Your task to perform on an android device: turn off javascript in the chrome app Image 0: 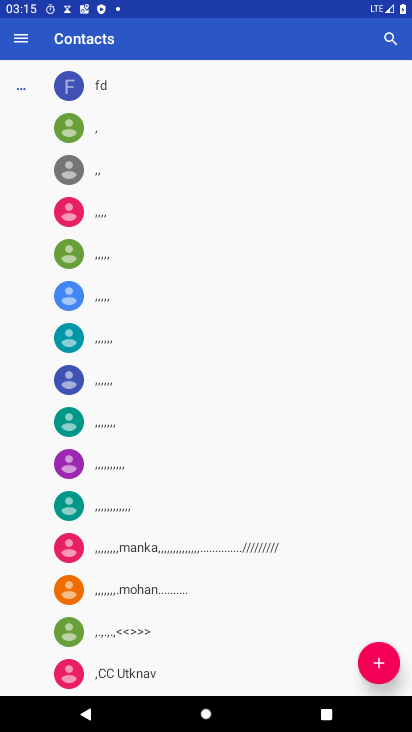
Step 0: press home button
Your task to perform on an android device: turn off javascript in the chrome app Image 1: 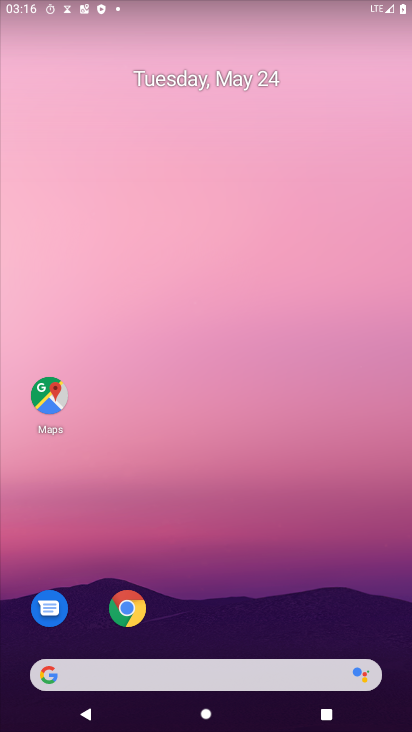
Step 1: drag from (270, 627) to (174, 96)
Your task to perform on an android device: turn off javascript in the chrome app Image 2: 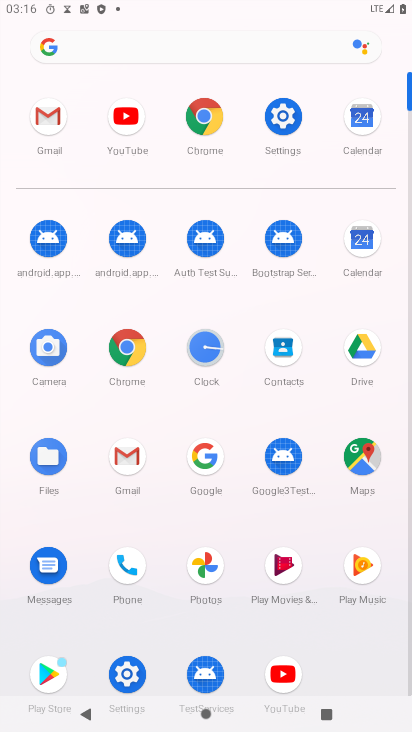
Step 2: click (219, 106)
Your task to perform on an android device: turn off javascript in the chrome app Image 3: 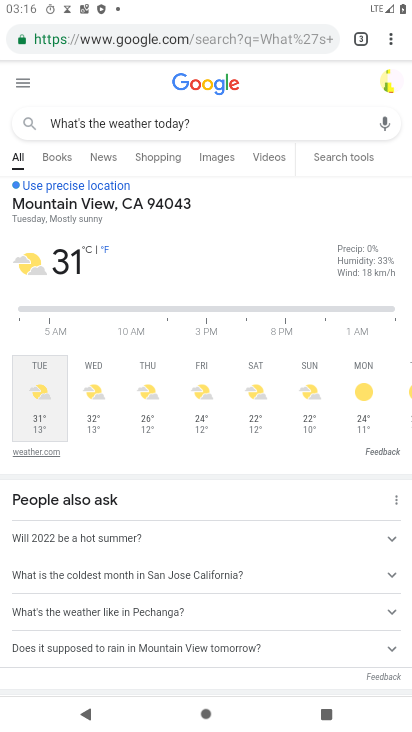
Step 3: click (388, 37)
Your task to perform on an android device: turn off javascript in the chrome app Image 4: 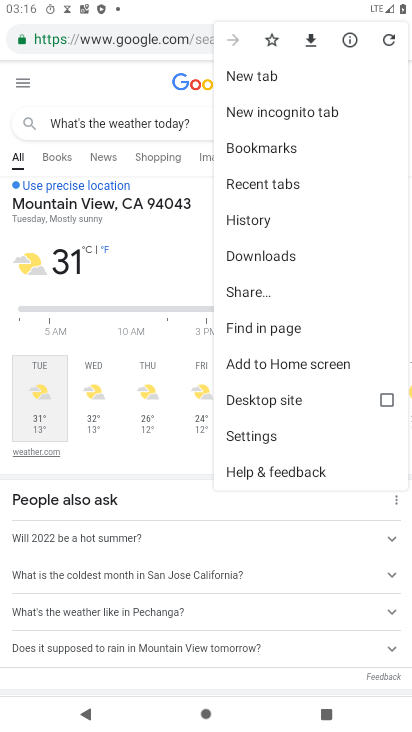
Step 4: click (299, 435)
Your task to perform on an android device: turn off javascript in the chrome app Image 5: 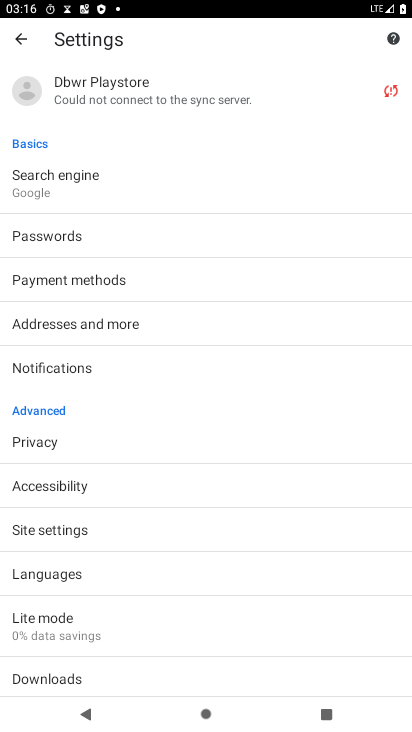
Step 5: click (195, 533)
Your task to perform on an android device: turn off javascript in the chrome app Image 6: 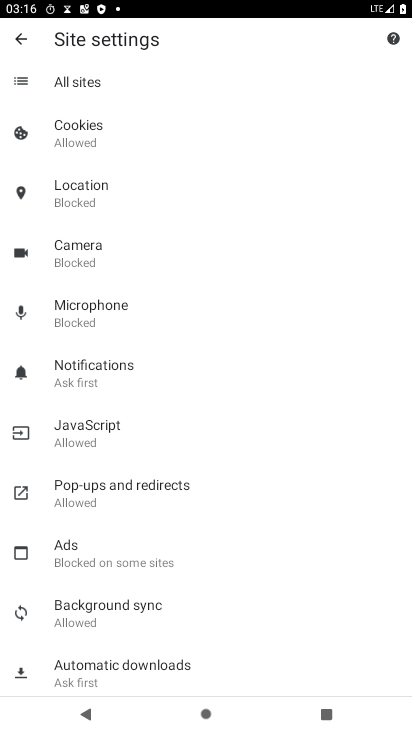
Step 6: click (151, 437)
Your task to perform on an android device: turn off javascript in the chrome app Image 7: 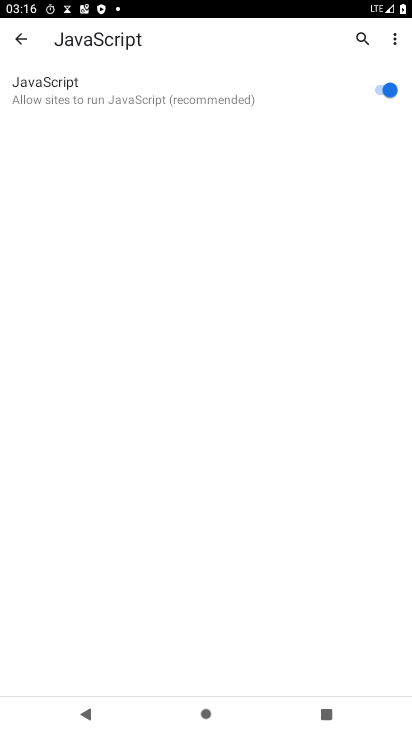
Step 7: click (378, 99)
Your task to perform on an android device: turn off javascript in the chrome app Image 8: 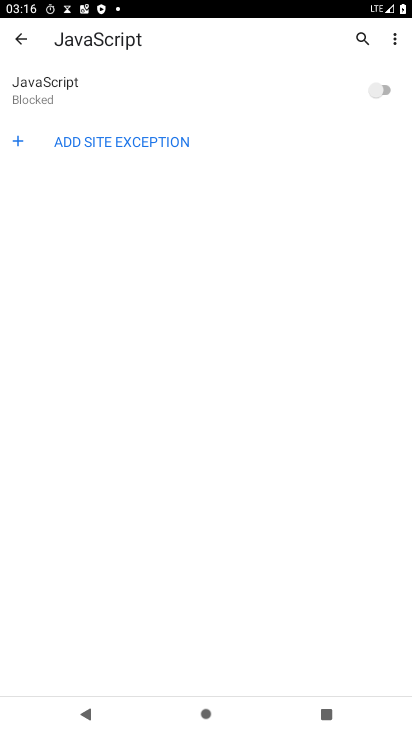
Step 8: task complete